Your task to perform on an android device: Open Yahoo.com Image 0: 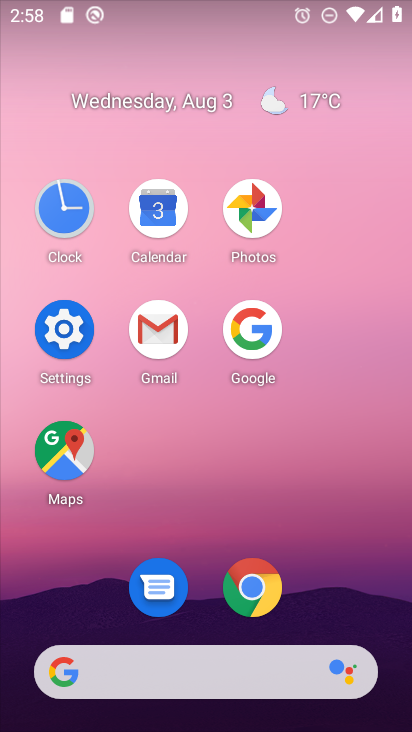
Step 0: click (255, 603)
Your task to perform on an android device: Open Yahoo.com Image 1: 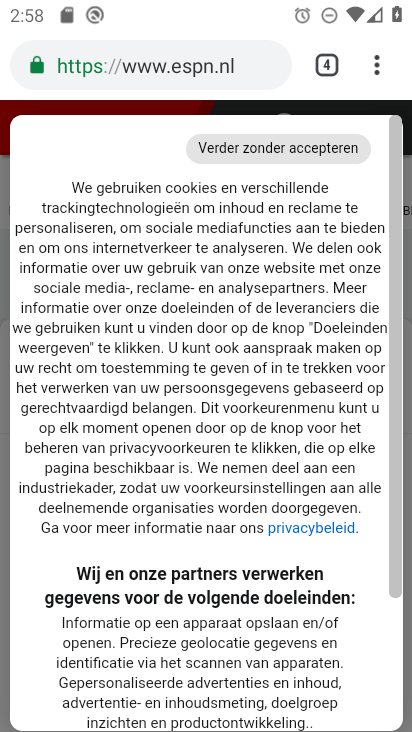
Step 1: click (317, 45)
Your task to perform on an android device: Open Yahoo.com Image 2: 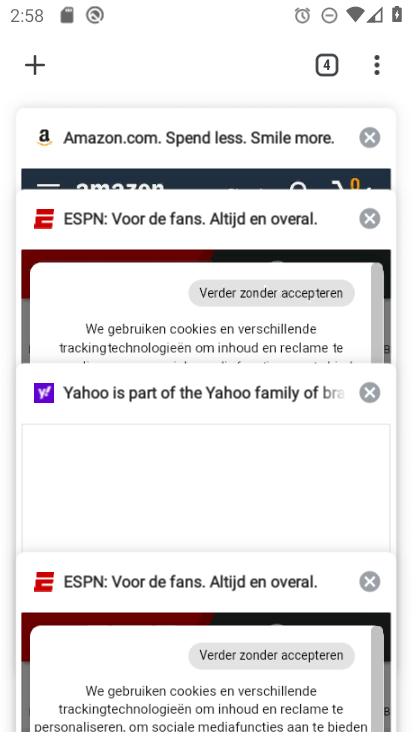
Step 2: click (128, 396)
Your task to perform on an android device: Open Yahoo.com Image 3: 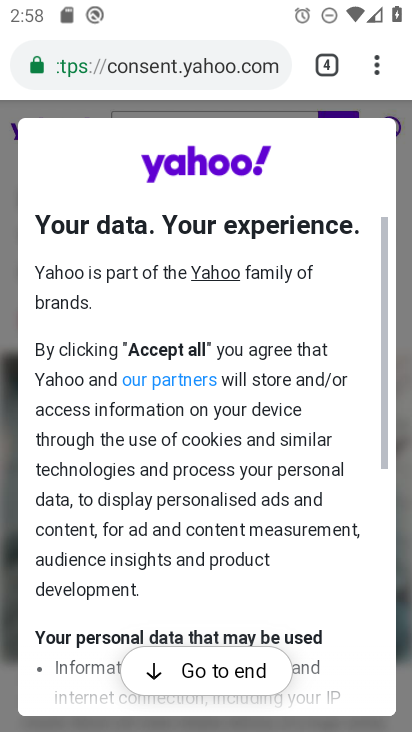
Step 3: task complete